Your task to perform on an android device: toggle pop-ups in chrome Image 0: 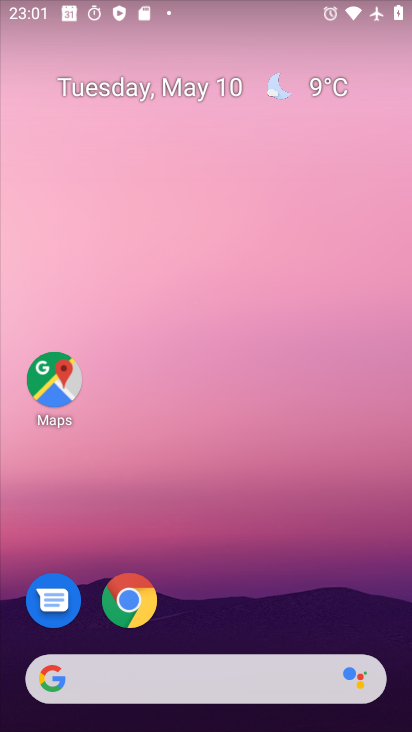
Step 0: drag from (305, 448) to (271, 30)
Your task to perform on an android device: toggle pop-ups in chrome Image 1: 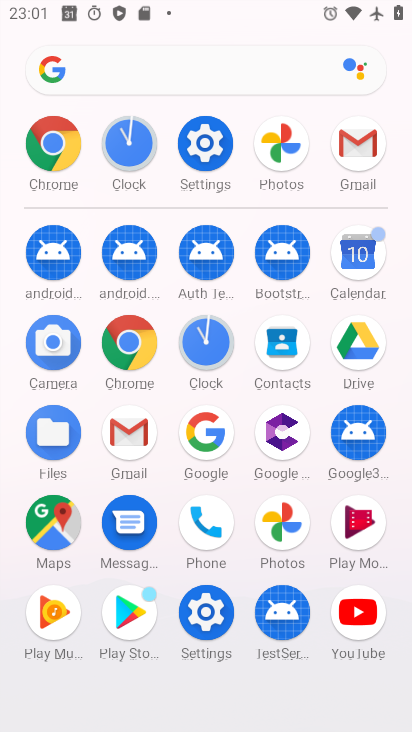
Step 1: click (39, 156)
Your task to perform on an android device: toggle pop-ups in chrome Image 2: 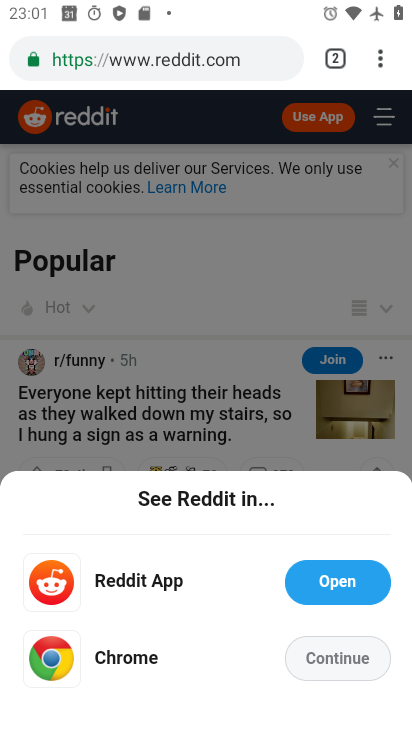
Step 2: drag from (382, 66) to (184, 621)
Your task to perform on an android device: toggle pop-ups in chrome Image 3: 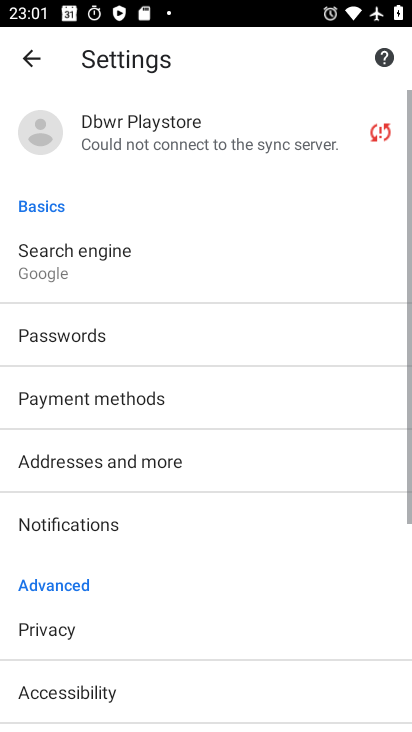
Step 3: drag from (187, 613) to (263, 174)
Your task to perform on an android device: toggle pop-ups in chrome Image 4: 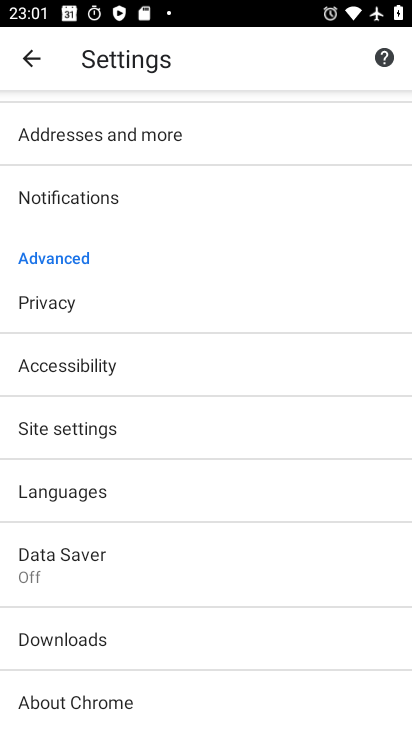
Step 4: click (75, 442)
Your task to perform on an android device: toggle pop-ups in chrome Image 5: 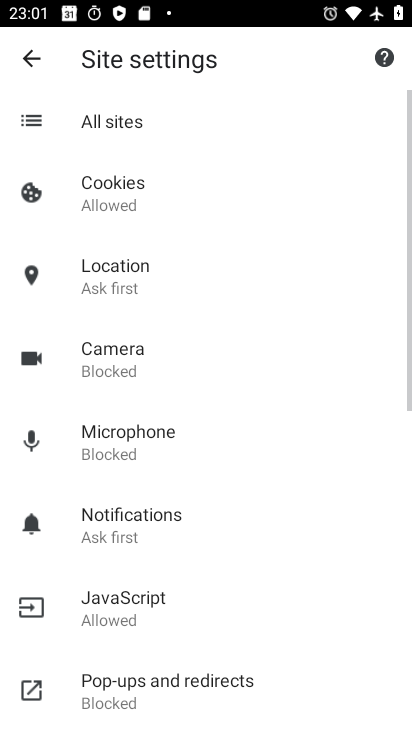
Step 5: drag from (153, 645) to (181, 276)
Your task to perform on an android device: toggle pop-ups in chrome Image 6: 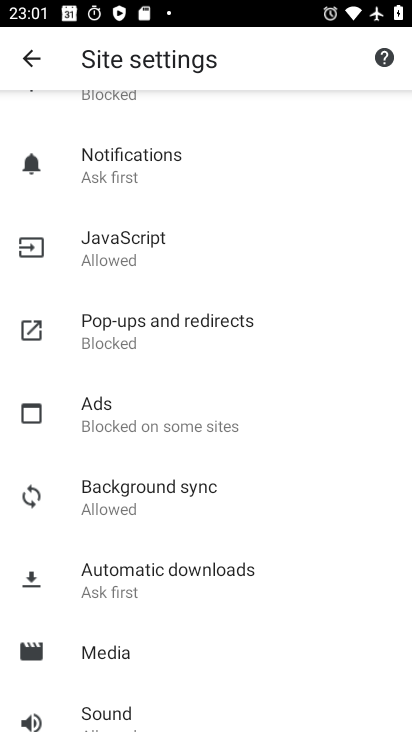
Step 6: click (148, 328)
Your task to perform on an android device: toggle pop-ups in chrome Image 7: 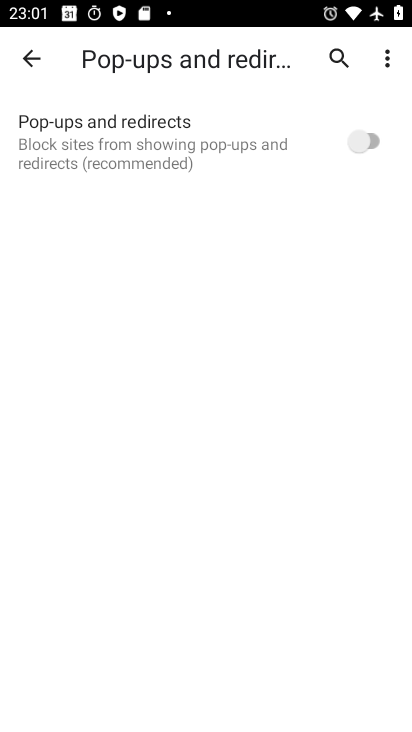
Step 7: click (377, 153)
Your task to perform on an android device: toggle pop-ups in chrome Image 8: 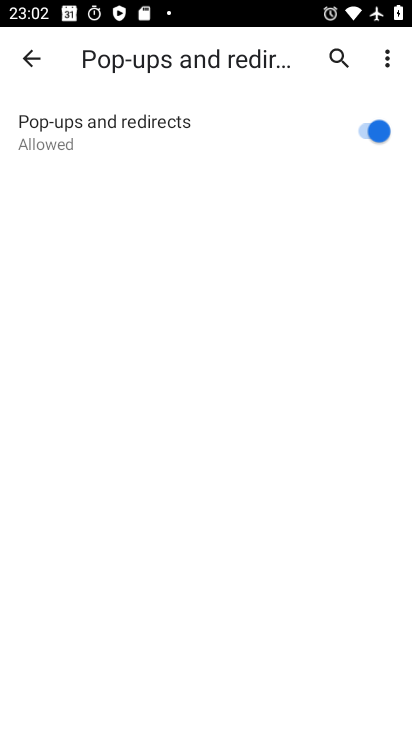
Step 8: task complete